Your task to perform on an android device: toggle notifications settings in the gmail app Image 0: 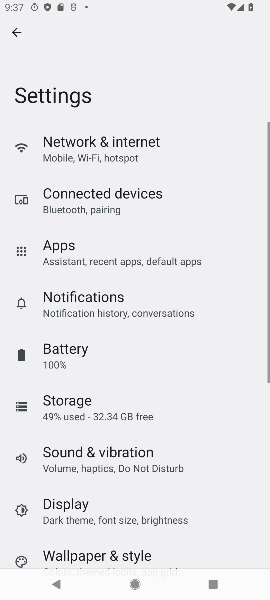
Step 0: press home button
Your task to perform on an android device: toggle notifications settings in the gmail app Image 1: 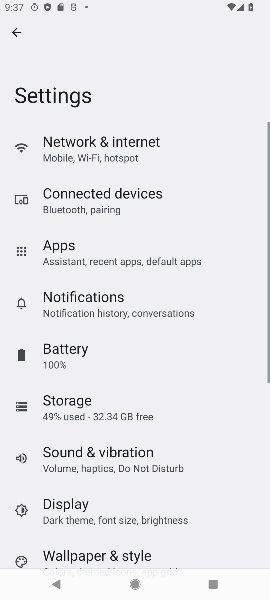
Step 1: press home button
Your task to perform on an android device: toggle notifications settings in the gmail app Image 2: 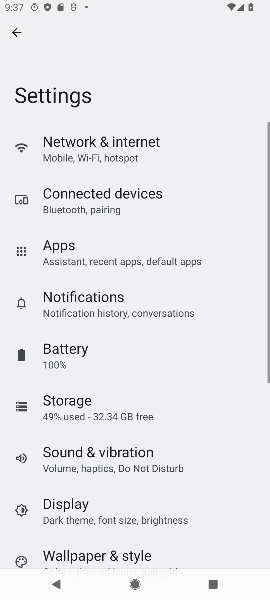
Step 2: press home button
Your task to perform on an android device: toggle notifications settings in the gmail app Image 3: 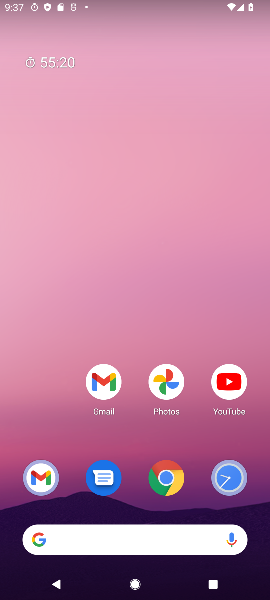
Step 3: drag from (25, 366) to (169, 0)
Your task to perform on an android device: toggle notifications settings in the gmail app Image 4: 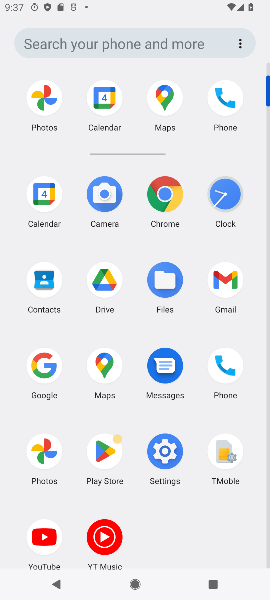
Step 4: click (230, 281)
Your task to perform on an android device: toggle notifications settings in the gmail app Image 5: 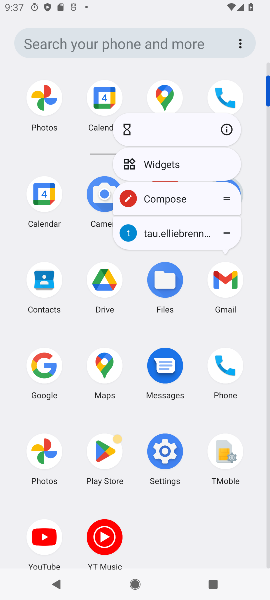
Step 5: click (225, 126)
Your task to perform on an android device: toggle notifications settings in the gmail app Image 6: 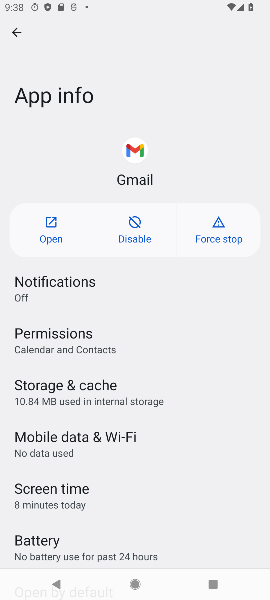
Step 6: click (34, 299)
Your task to perform on an android device: toggle notifications settings in the gmail app Image 7: 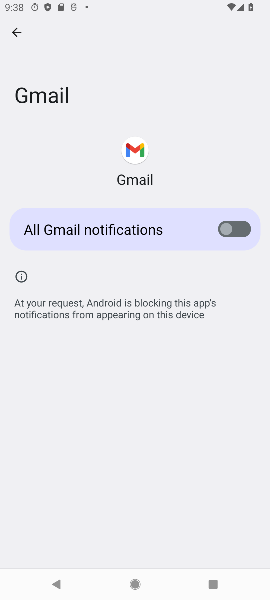
Step 7: click (203, 230)
Your task to perform on an android device: toggle notifications settings in the gmail app Image 8: 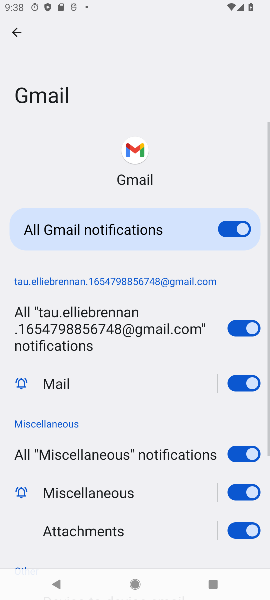
Step 8: task complete